Your task to perform on an android device: turn off location history Image 0: 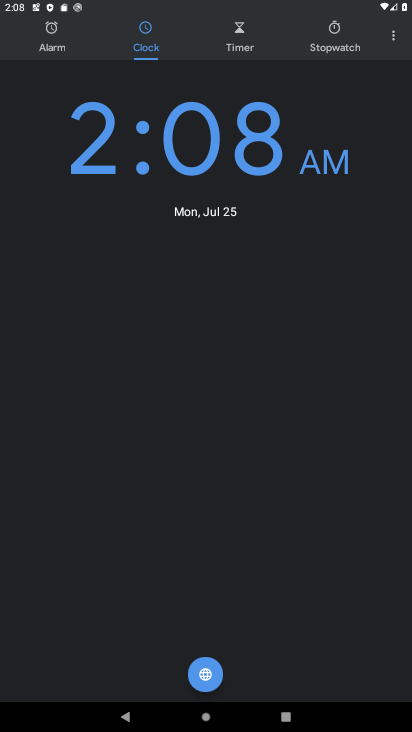
Step 0: press home button
Your task to perform on an android device: turn off location history Image 1: 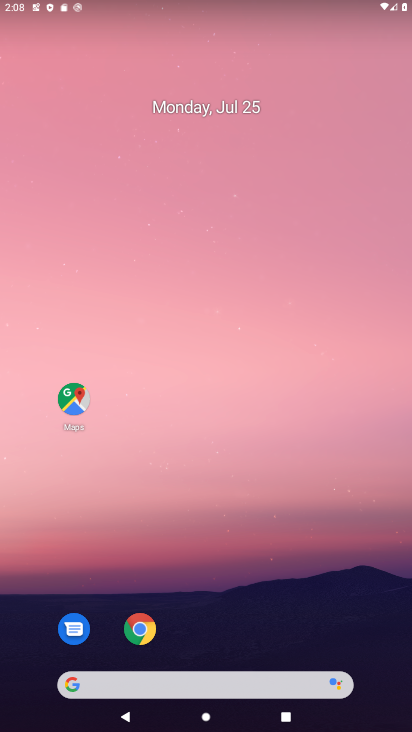
Step 1: click (139, 622)
Your task to perform on an android device: turn off location history Image 2: 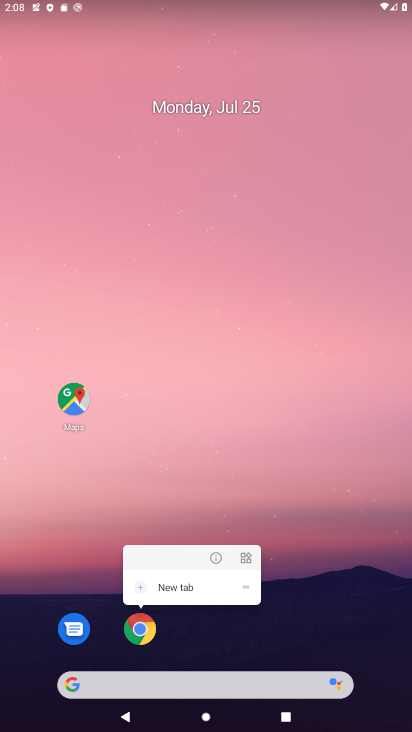
Step 2: click (139, 630)
Your task to perform on an android device: turn off location history Image 3: 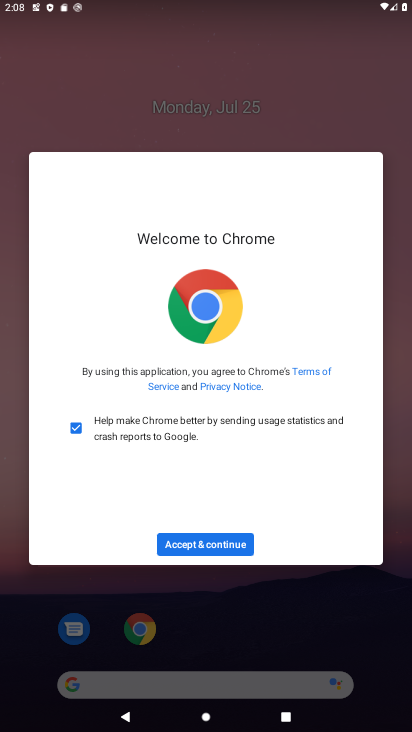
Step 3: click (194, 542)
Your task to perform on an android device: turn off location history Image 4: 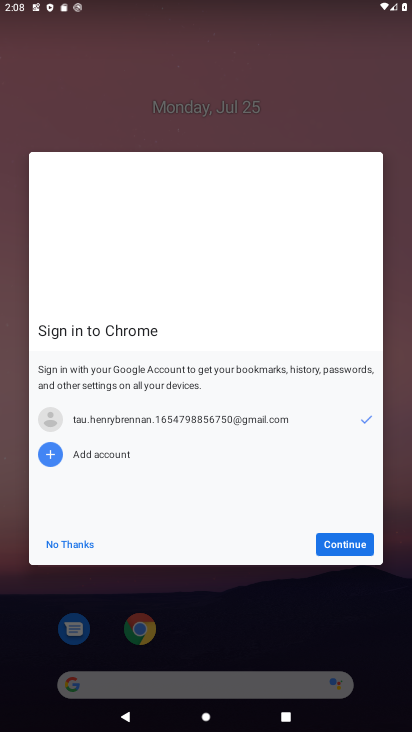
Step 4: click (363, 541)
Your task to perform on an android device: turn off location history Image 5: 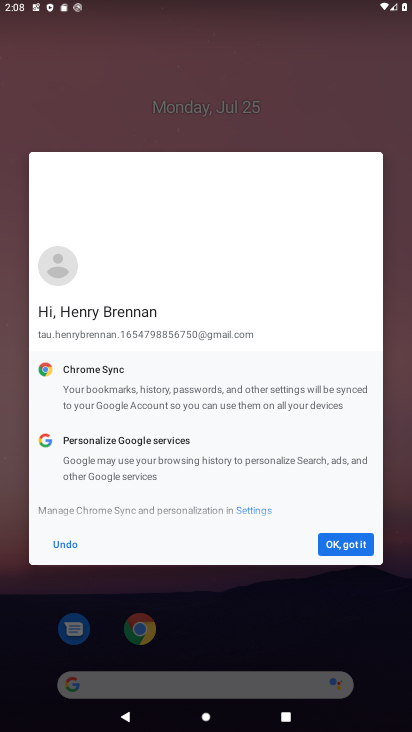
Step 5: click (349, 533)
Your task to perform on an android device: turn off location history Image 6: 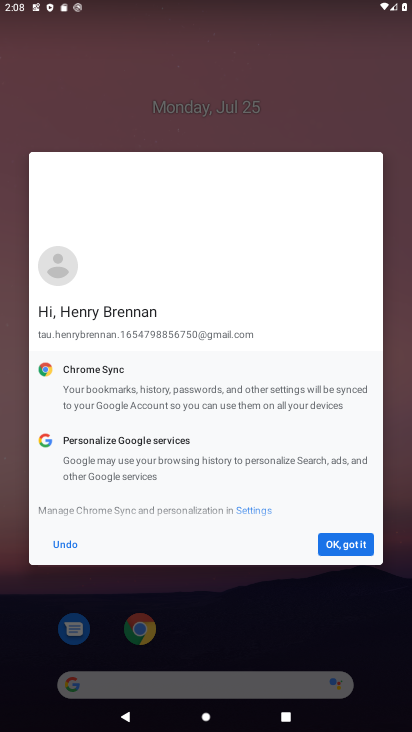
Step 6: click (350, 541)
Your task to perform on an android device: turn off location history Image 7: 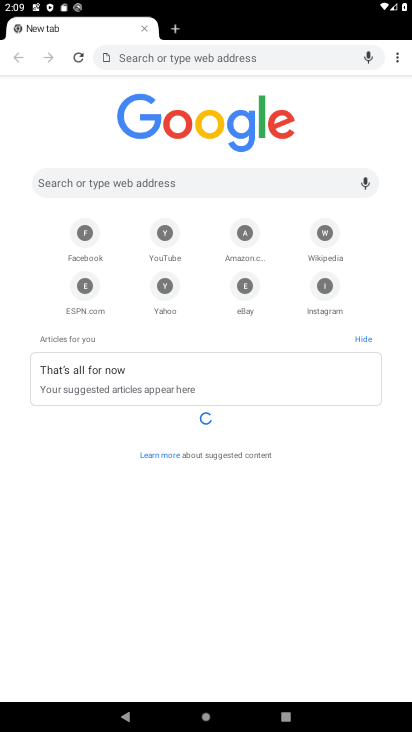
Step 7: click (397, 55)
Your task to perform on an android device: turn off location history Image 8: 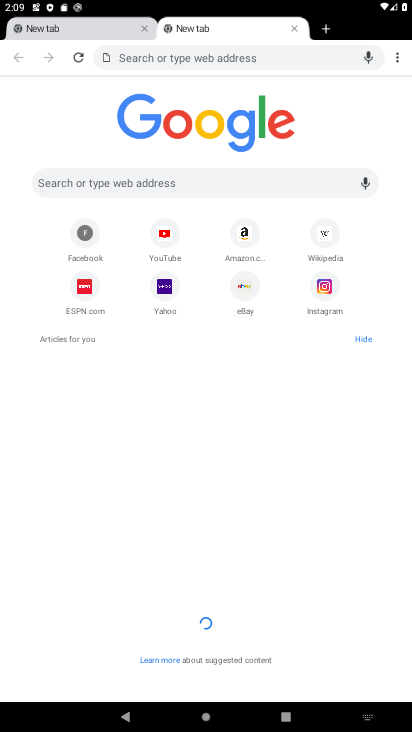
Step 8: click (397, 55)
Your task to perform on an android device: turn off location history Image 9: 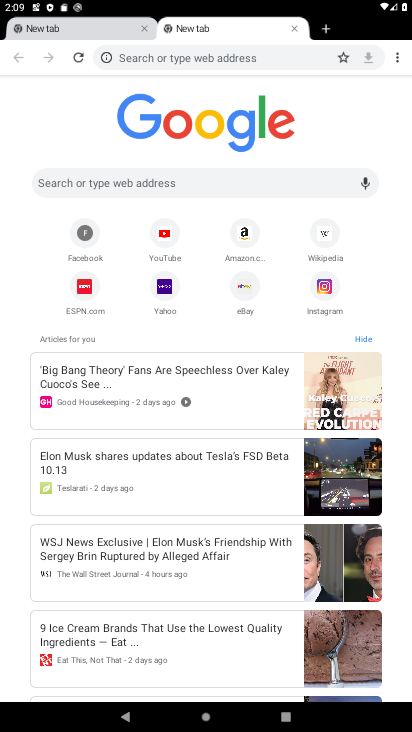
Step 9: click (401, 56)
Your task to perform on an android device: turn off location history Image 10: 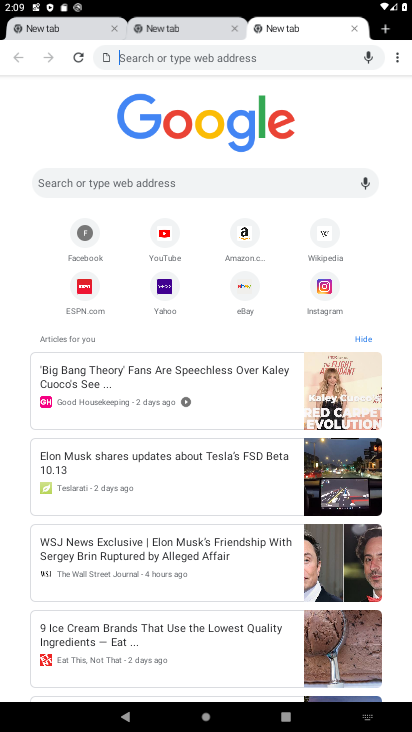
Step 10: task complete